Your task to perform on an android device: install app "Google News" Image 0: 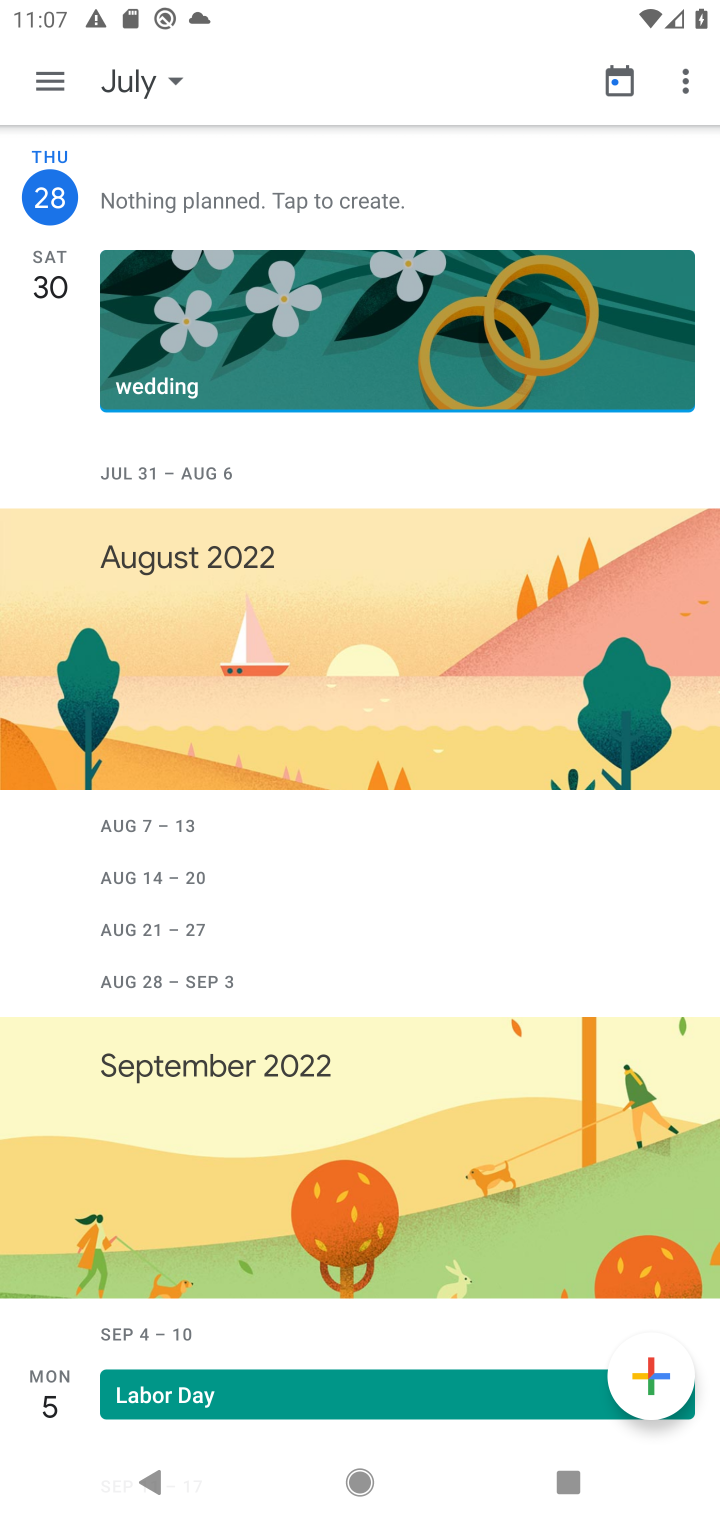
Step 0: press home button
Your task to perform on an android device: install app "Google News" Image 1: 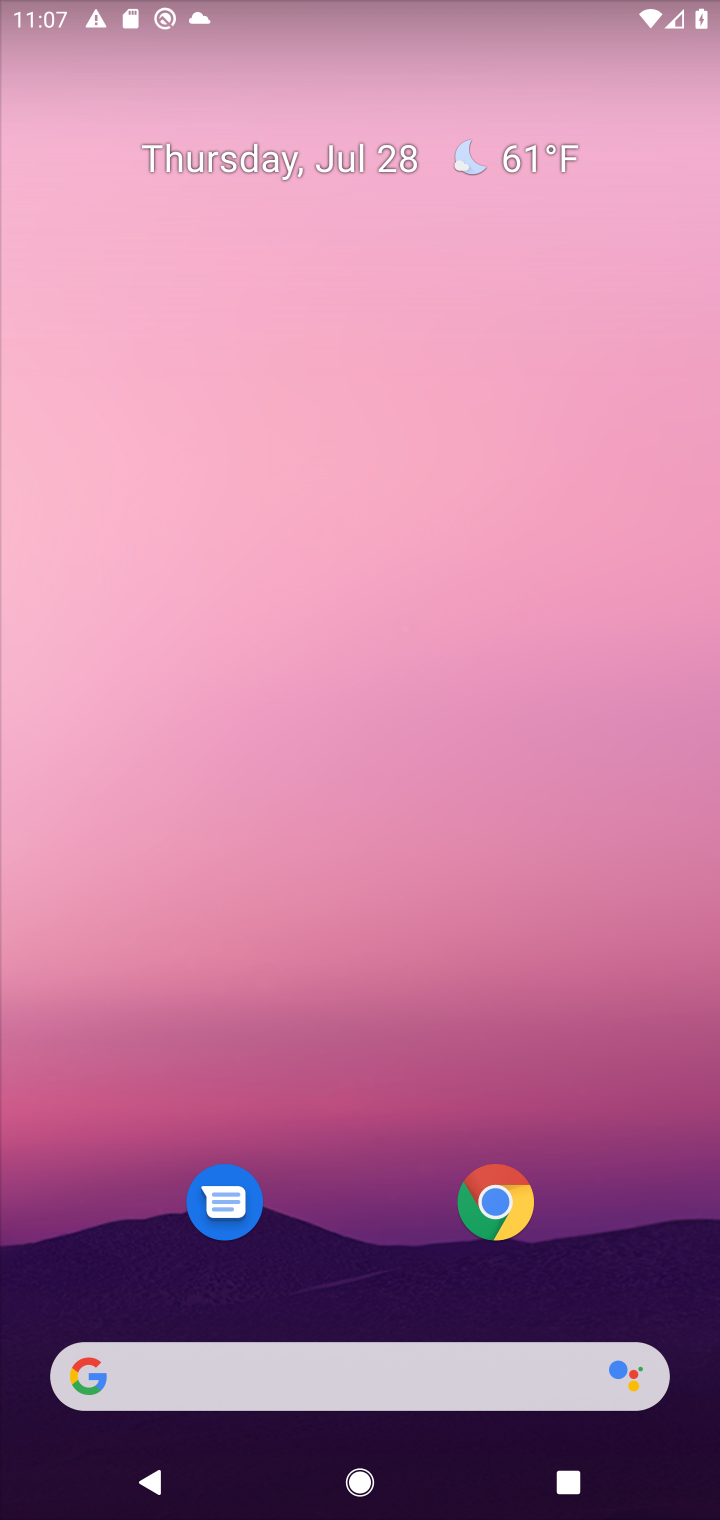
Step 1: press home button
Your task to perform on an android device: install app "Google News" Image 2: 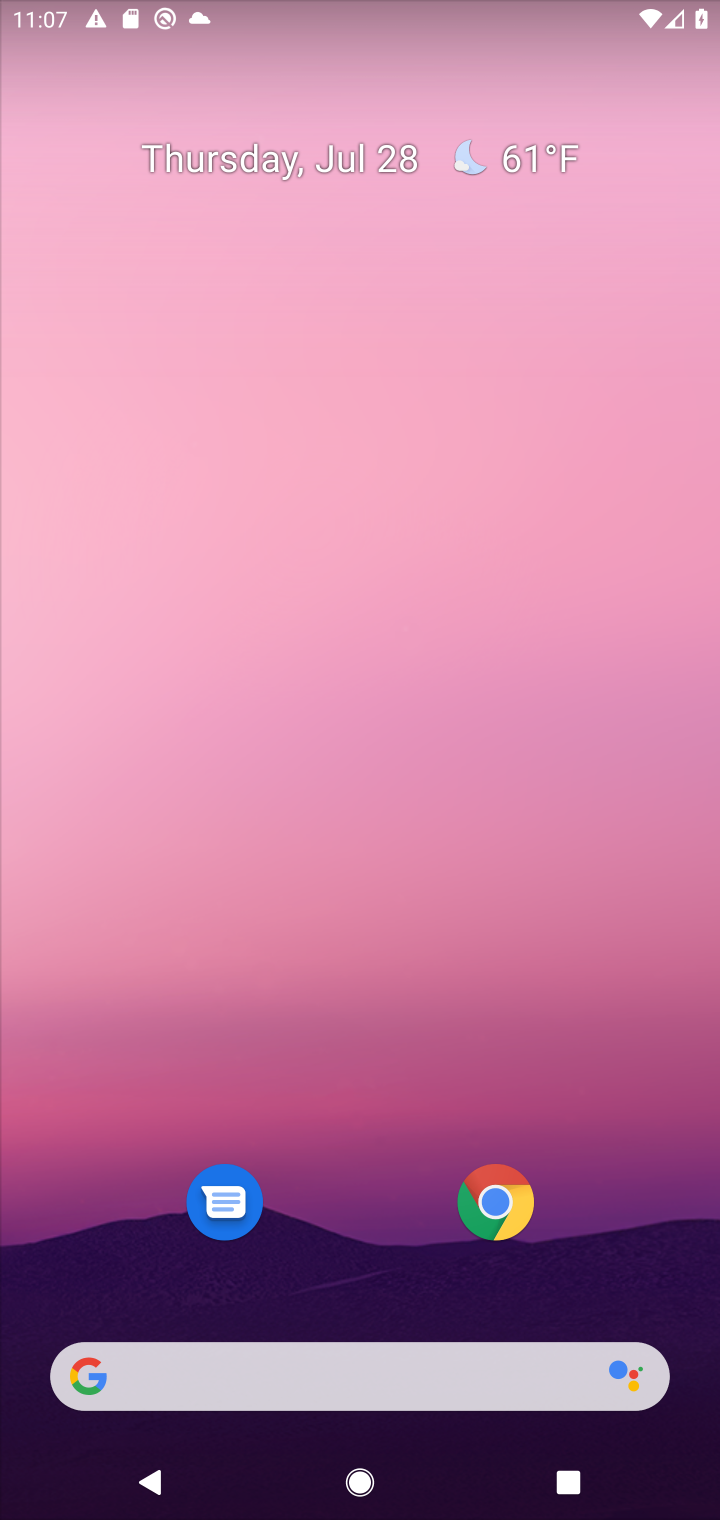
Step 2: press home button
Your task to perform on an android device: install app "Google News" Image 3: 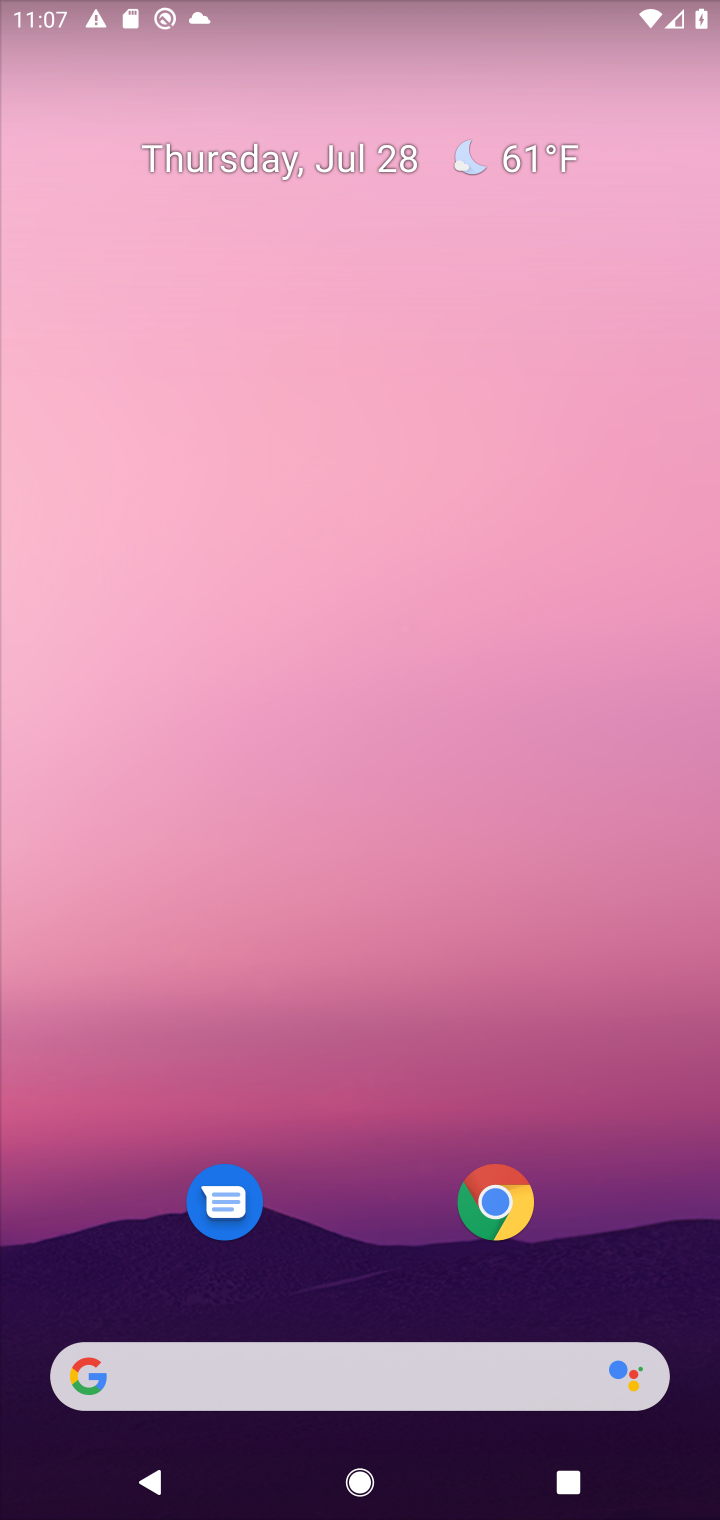
Step 3: click (452, 1405)
Your task to perform on an android device: install app "Google News" Image 4: 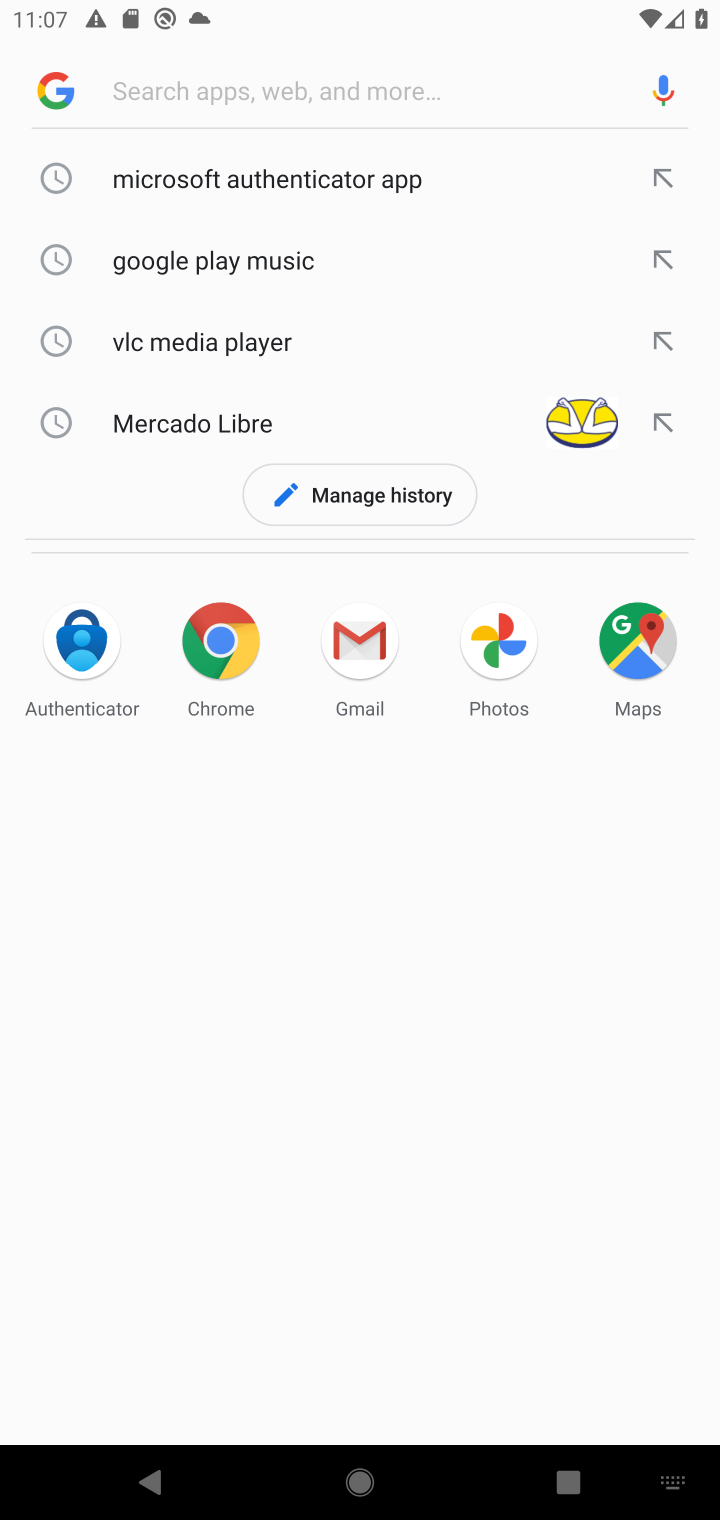
Step 4: type "goolge news"
Your task to perform on an android device: install app "Google News" Image 5: 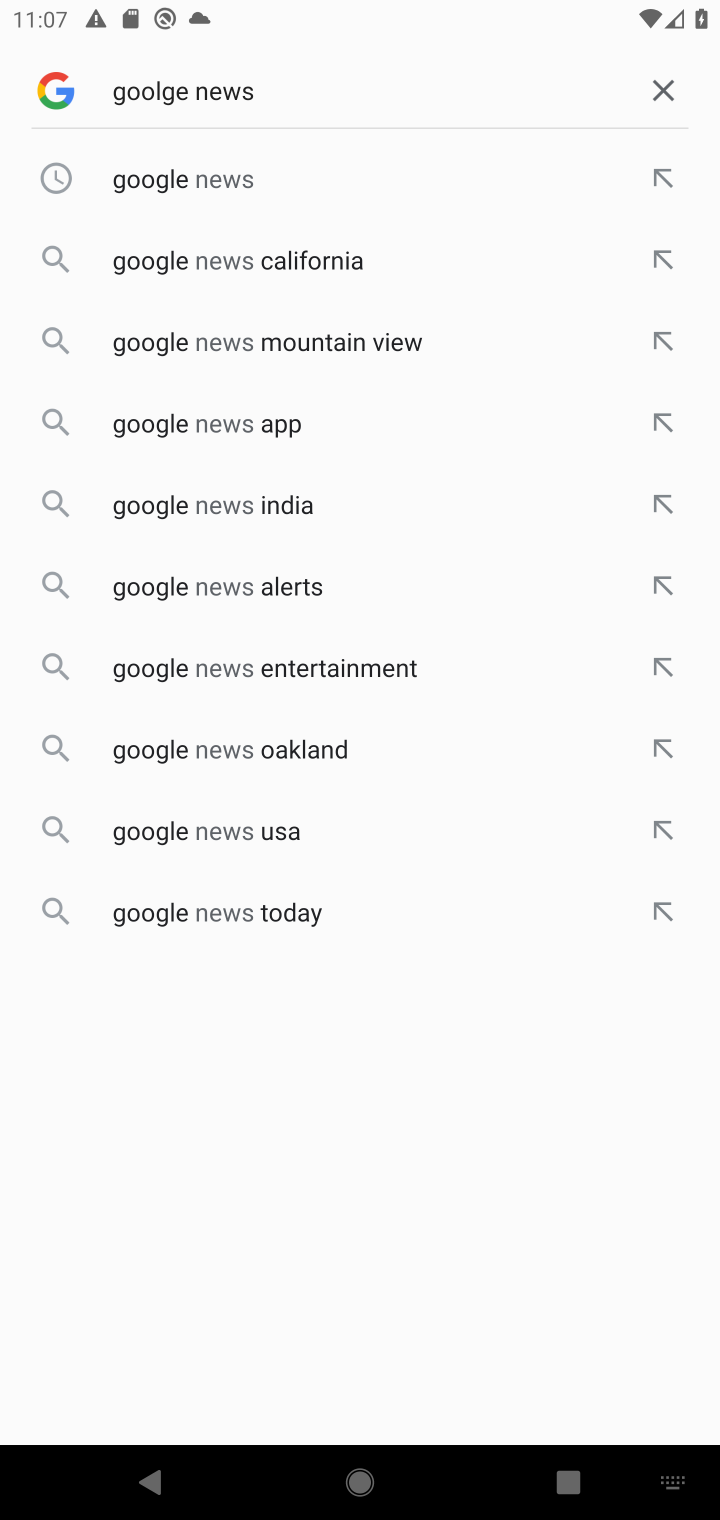
Step 5: click (379, 152)
Your task to perform on an android device: install app "Google News" Image 6: 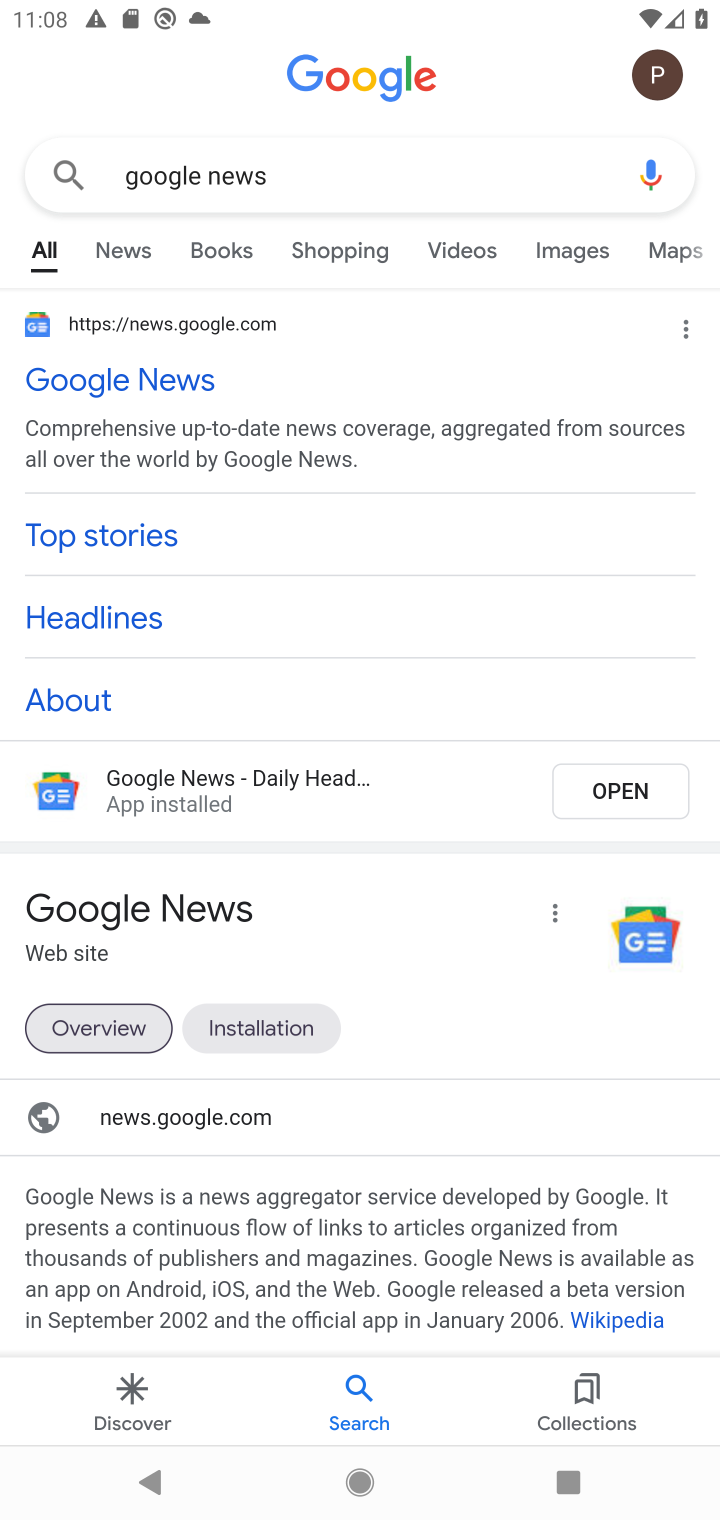
Step 6: click (626, 792)
Your task to perform on an android device: install app "Google News" Image 7: 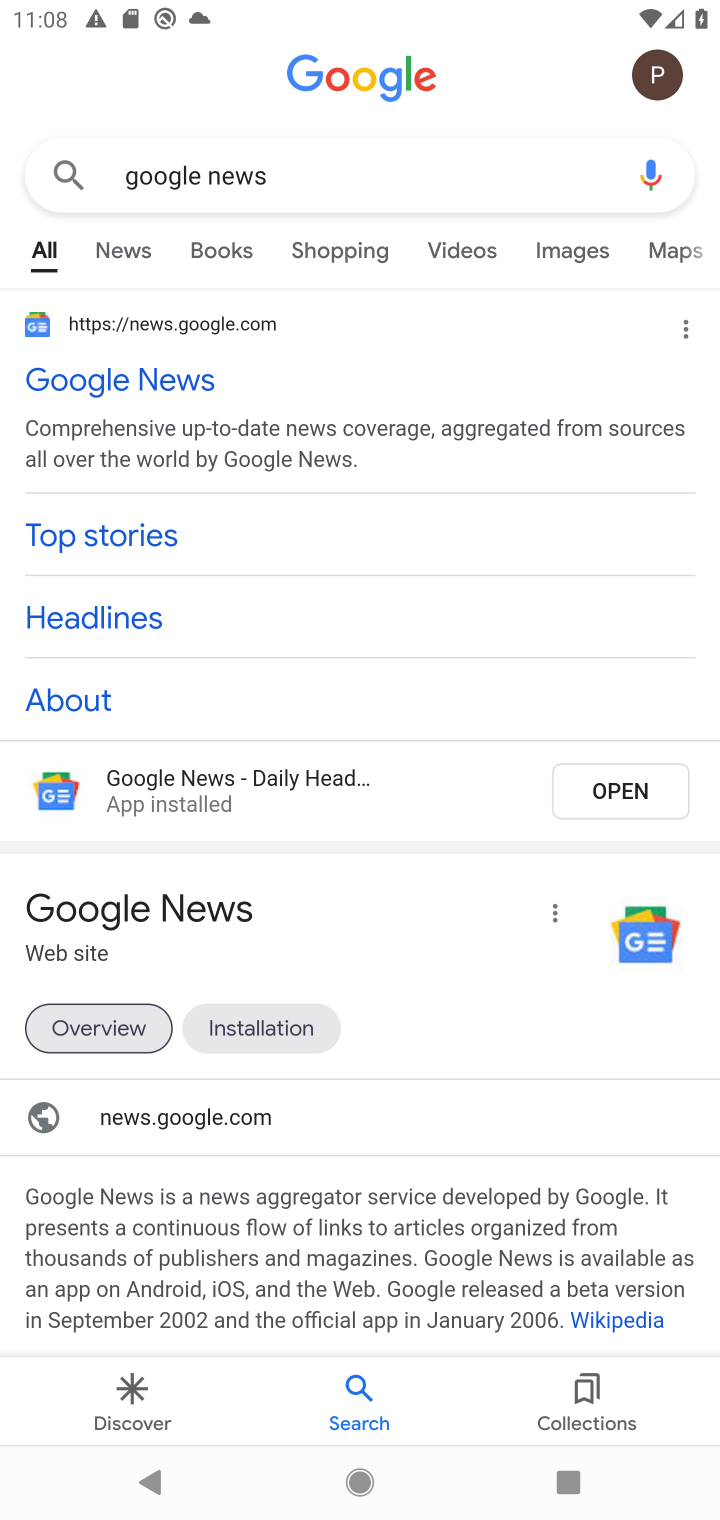
Step 7: task complete